Your task to perform on an android device: Search for seafood restaurants on Google Maps Image 0: 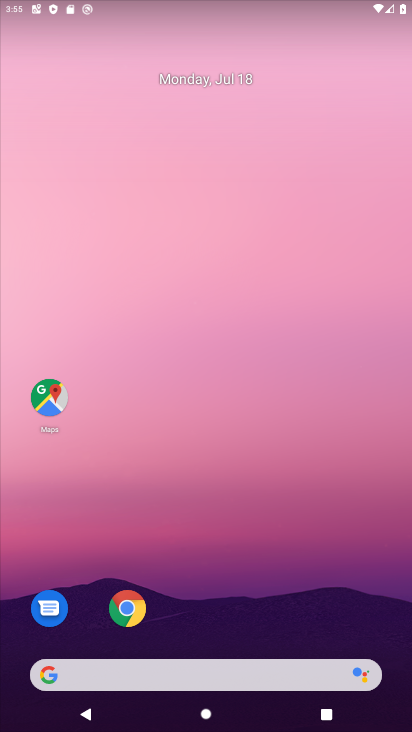
Step 0: click (46, 394)
Your task to perform on an android device: Search for seafood restaurants on Google Maps Image 1: 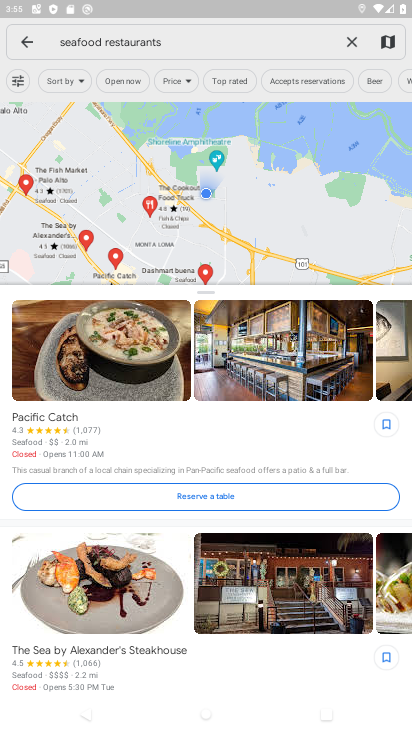
Step 1: task complete